Your task to perform on an android device: Open display settings Image 0: 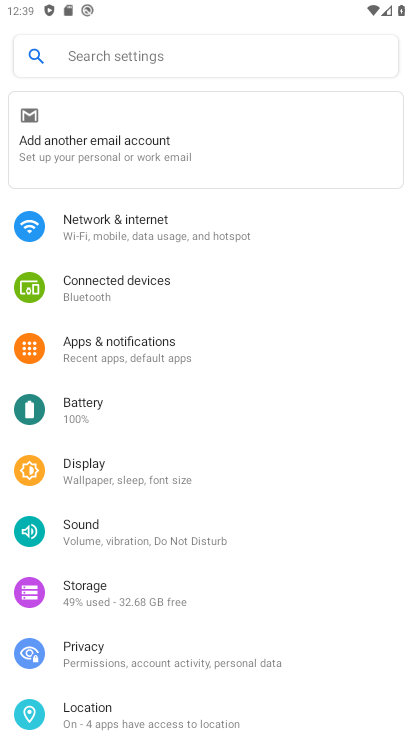
Step 0: click (121, 471)
Your task to perform on an android device: Open display settings Image 1: 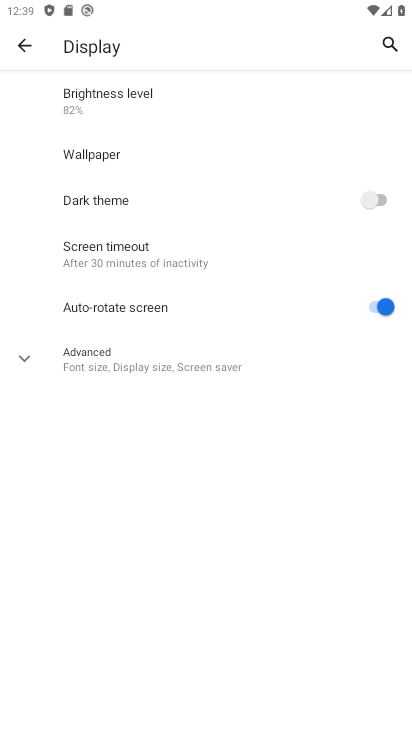
Step 1: task complete